Your task to perform on an android device: see sites visited before in the chrome app Image 0: 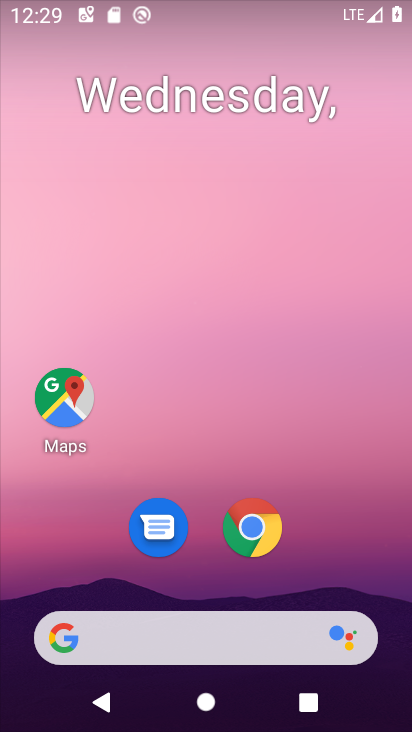
Step 0: drag from (217, 617) to (175, 13)
Your task to perform on an android device: see sites visited before in the chrome app Image 1: 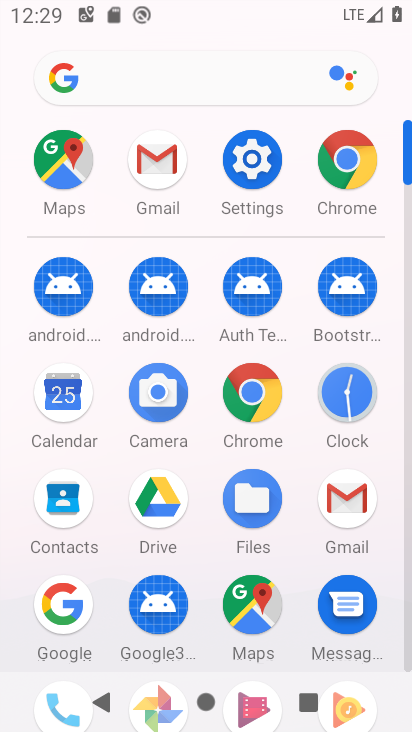
Step 1: click (261, 395)
Your task to perform on an android device: see sites visited before in the chrome app Image 2: 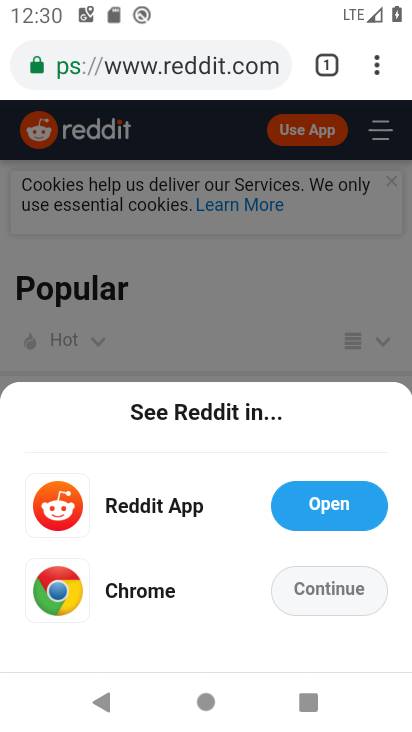
Step 2: click (380, 65)
Your task to perform on an android device: see sites visited before in the chrome app Image 3: 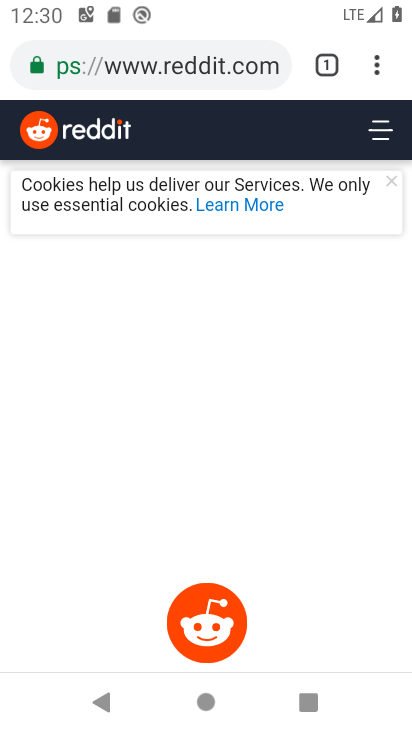
Step 3: click (373, 73)
Your task to perform on an android device: see sites visited before in the chrome app Image 4: 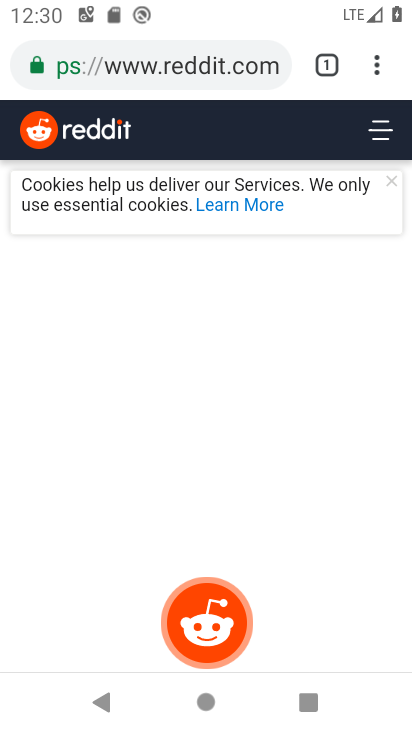
Step 4: task complete